Your task to perform on an android device: add a label to a message in the gmail app Image 0: 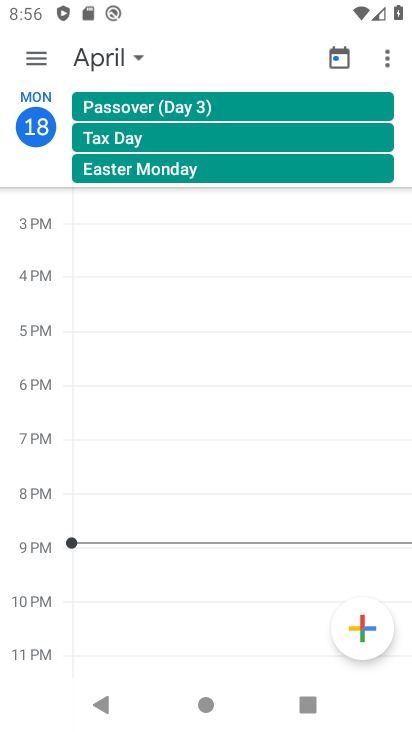
Step 0: click (90, 711)
Your task to perform on an android device: add a label to a message in the gmail app Image 1: 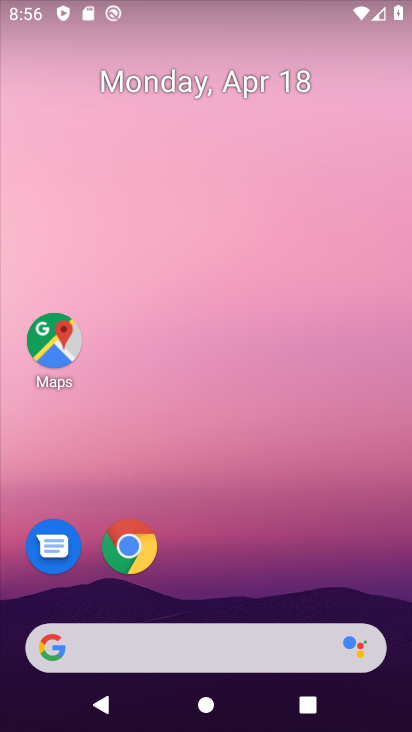
Step 1: drag from (269, 507) to (13, 120)
Your task to perform on an android device: add a label to a message in the gmail app Image 2: 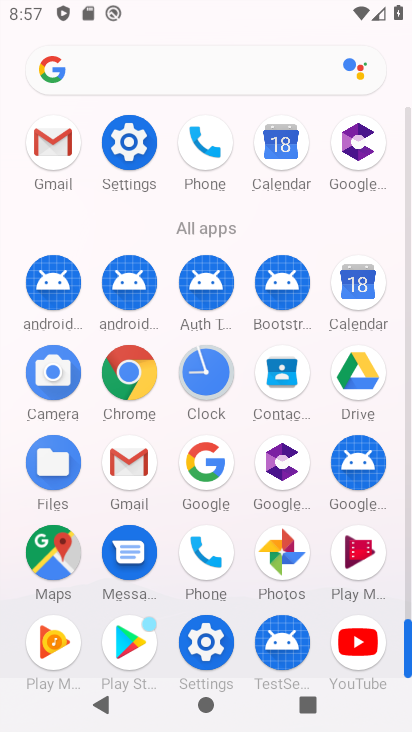
Step 2: click (55, 153)
Your task to perform on an android device: add a label to a message in the gmail app Image 3: 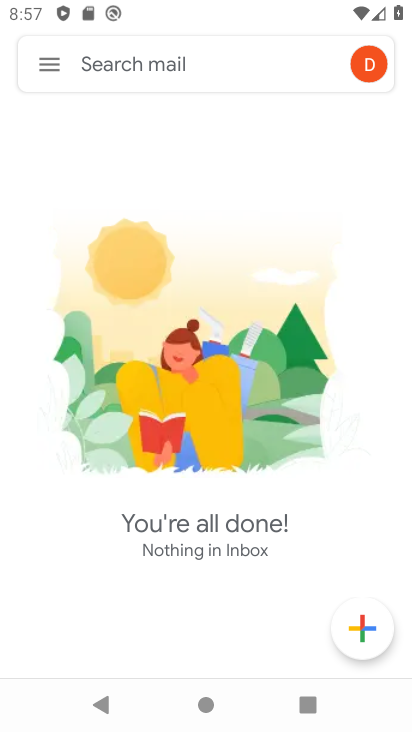
Step 3: task complete